Your task to perform on an android device: What's on my calendar tomorrow? Image 0: 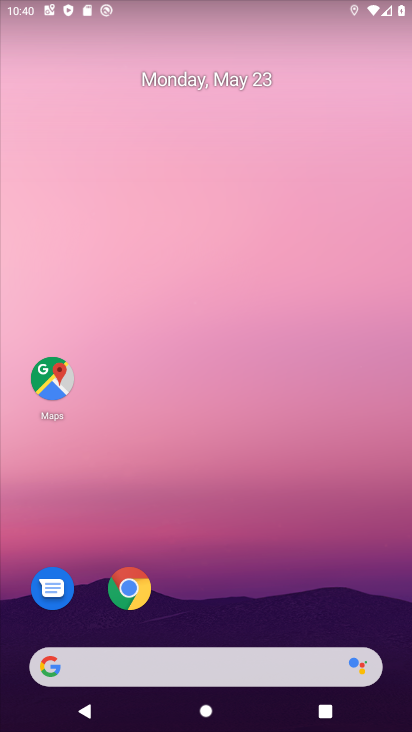
Step 0: drag from (326, 547) to (268, 20)
Your task to perform on an android device: What's on my calendar tomorrow? Image 1: 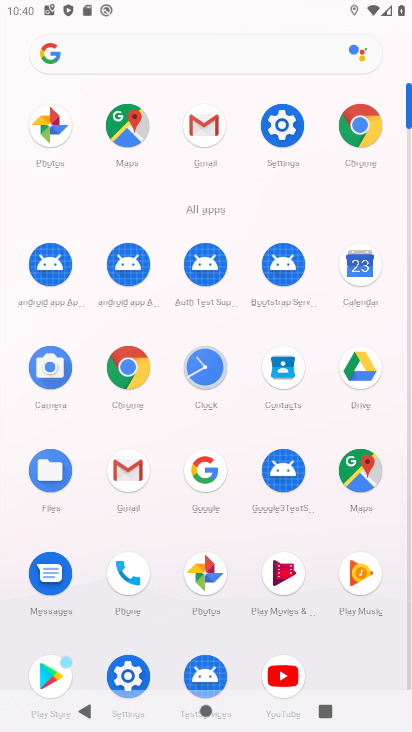
Step 1: click (369, 263)
Your task to perform on an android device: What's on my calendar tomorrow? Image 2: 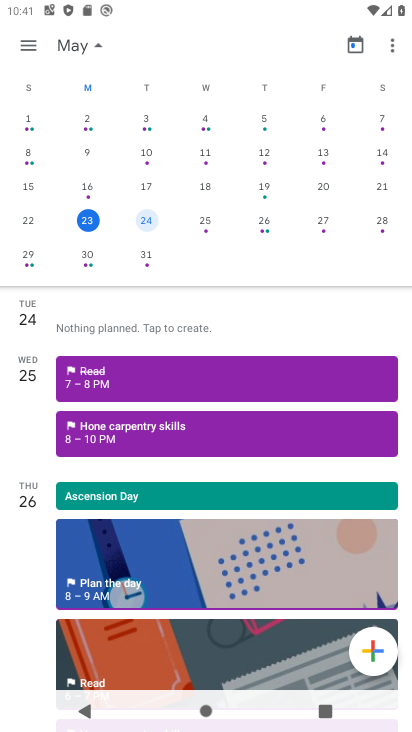
Step 2: click (142, 220)
Your task to perform on an android device: What's on my calendar tomorrow? Image 3: 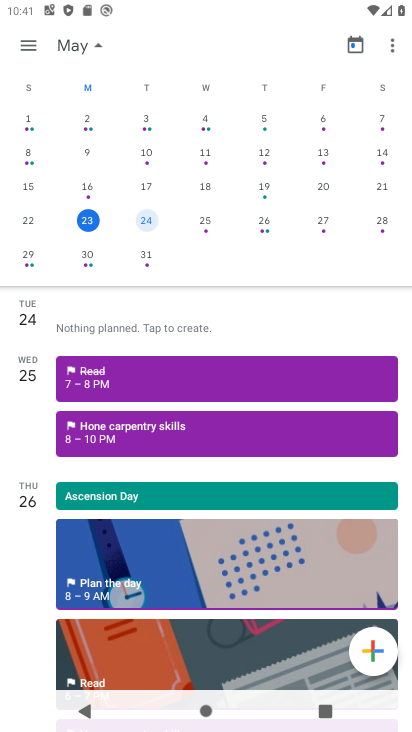
Step 3: task complete